Your task to perform on an android device: turn on the 12-hour format for clock Image 0: 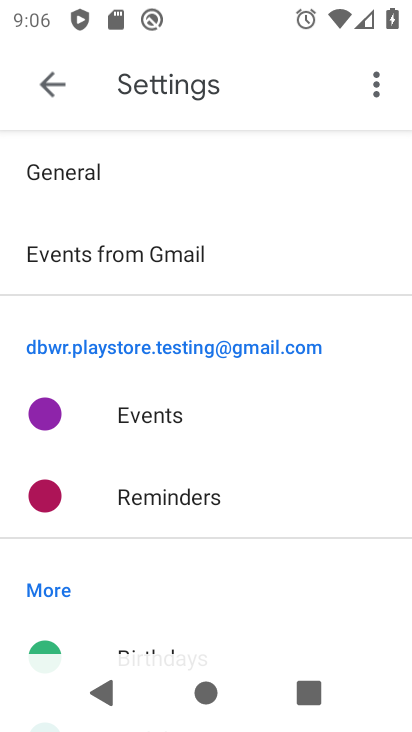
Step 0: drag from (236, 564) to (352, 204)
Your task to perform on an android device: turn on the 12-hour format for clock Image 1: 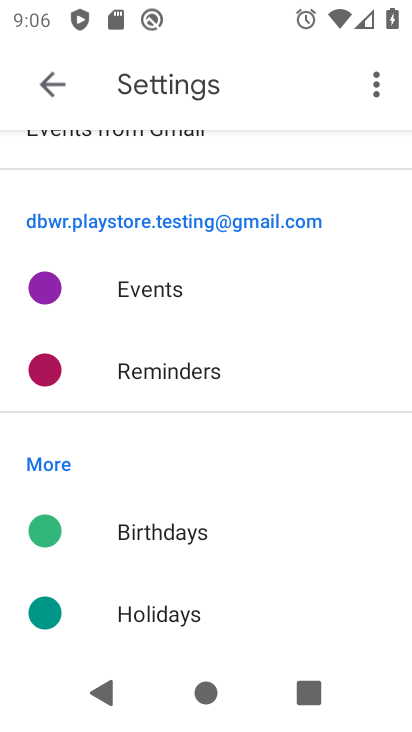
Step 1: press home button
Your task to perform on an android device: turn on the 12-hour format for clock Image 2: 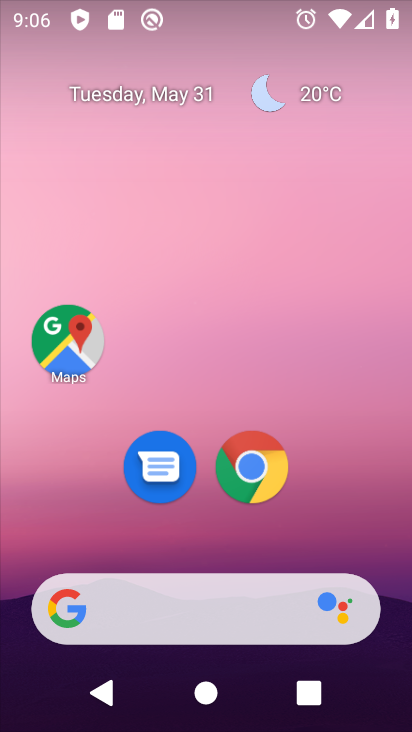
Step 2: drag from (185, 534) to (258, 241)
Your task to perform on an android device: turn on the 12-hour format for clock Image 3: 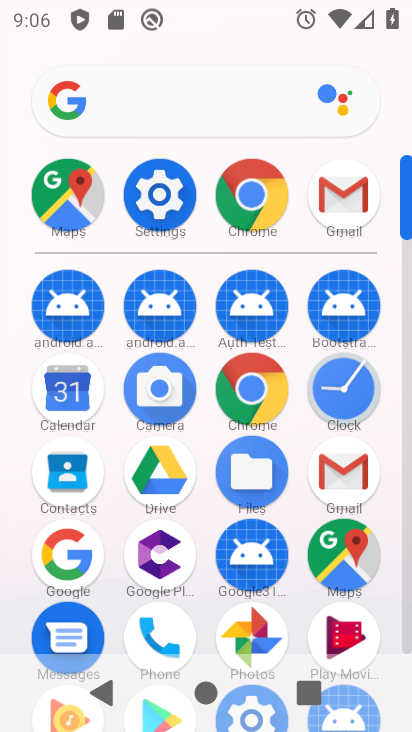
Step 3: click (336, 203)
Your task to perform on an android device: turn on the 12-hour format for clock Image 4: 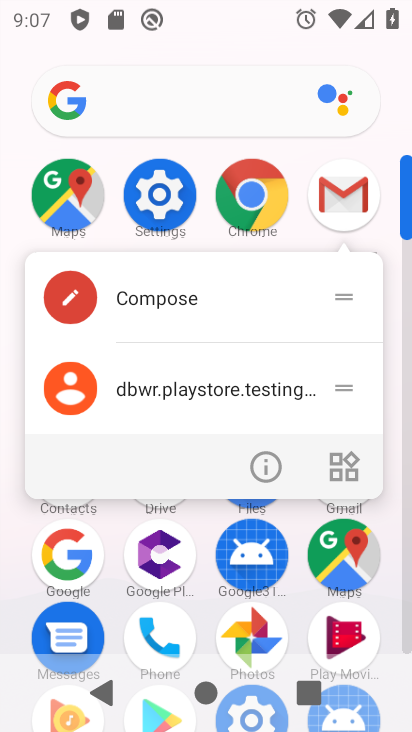
Step 4: click (399, 92)
Your task to perform on an android device: turn on the 12-hour format for clock Image 5: 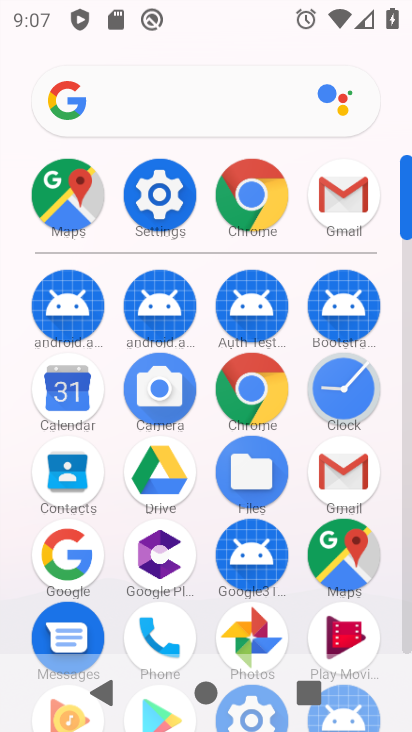
Step 5: click (343, 400)
Your task to perform on an android device: turn on the 12-hour format for clock Image 6: 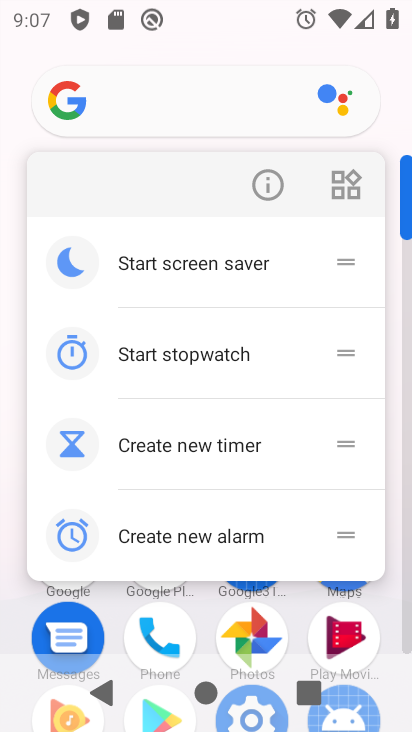
Step 6: click (280, 192)
Your task to perform on an android device: turn on the 12-hour format for clock Image 7: 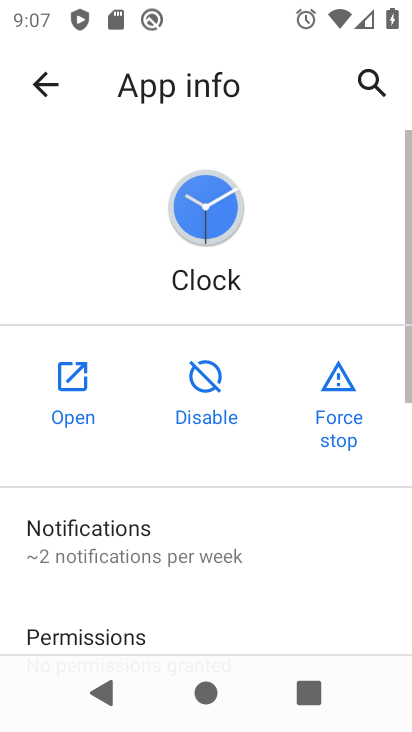
Step 7: click (67, 374)
Your task to perform on an android device: turn on the 12-hour format for clock Image 8: 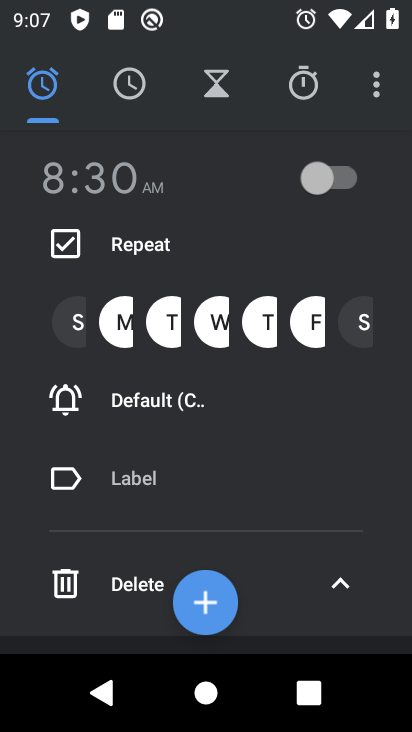
Step 8: click (371, 103)
Your task to perform on an android device: turn on the 12-hour format for clock Image 9: 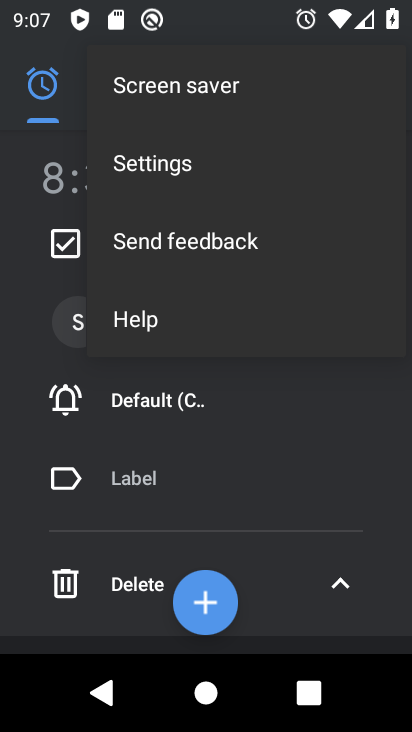
Step 9: click (220, 174)
Your task to perform on an android device: turn on the 12-hour format for clock Image 10: 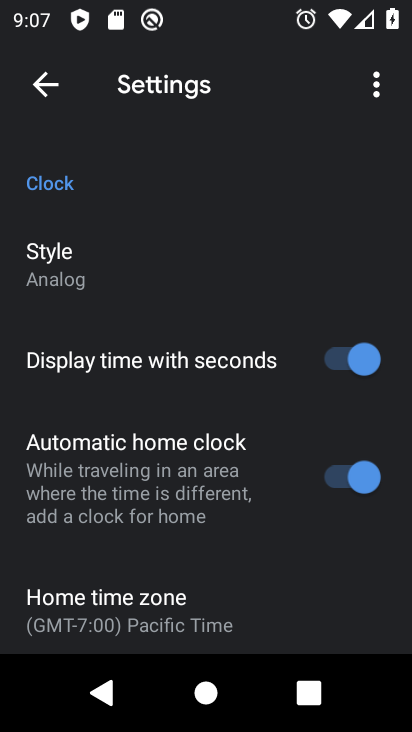
Step 10: drag from (123, 533) to (410, 69)
Your task to perform on an android device: turn on the 12-hour format for clock Image 11: 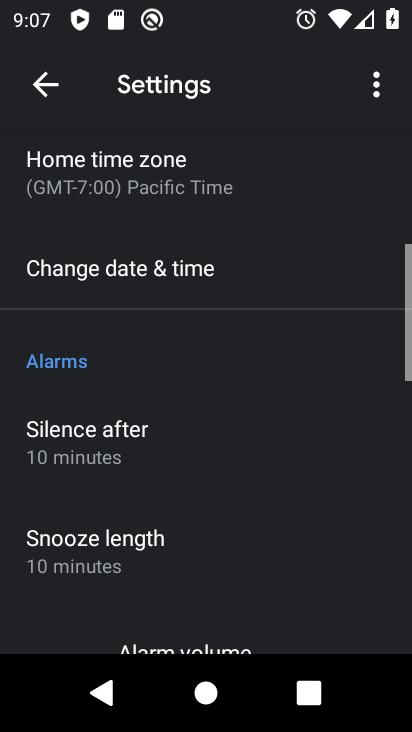
Step 11: click (156, 338)
Your task to perform on an android device: turn on the 12-hour format for clock Image 12: 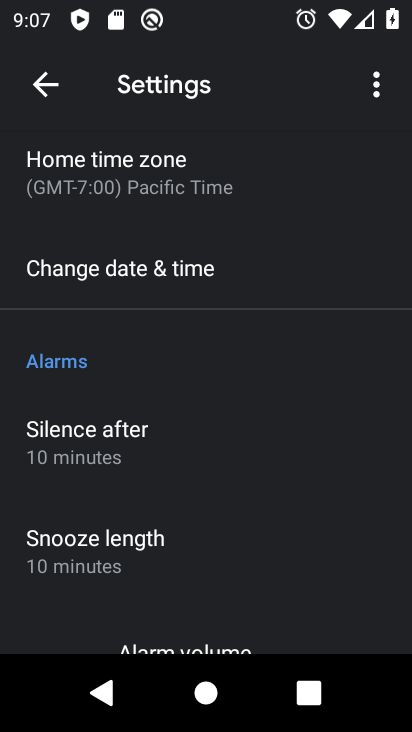
Step 12: click (199, 271)
Your task to perform on an android device: turn on the 12-hour format for clock Image 13: 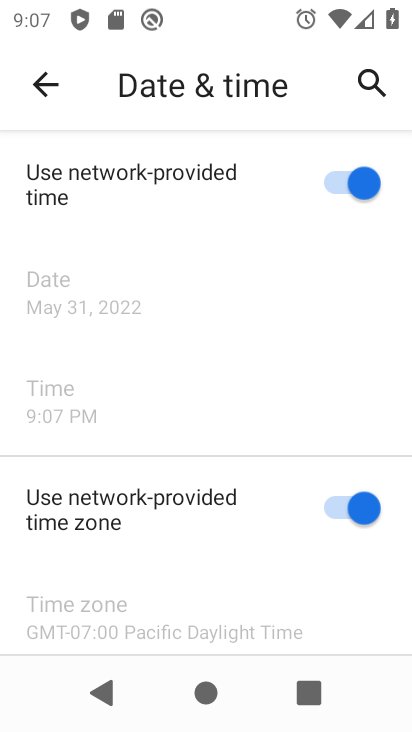
Step 13: task complete